Your task to perform on an android device: Open Maps and search for coffee Image 0: 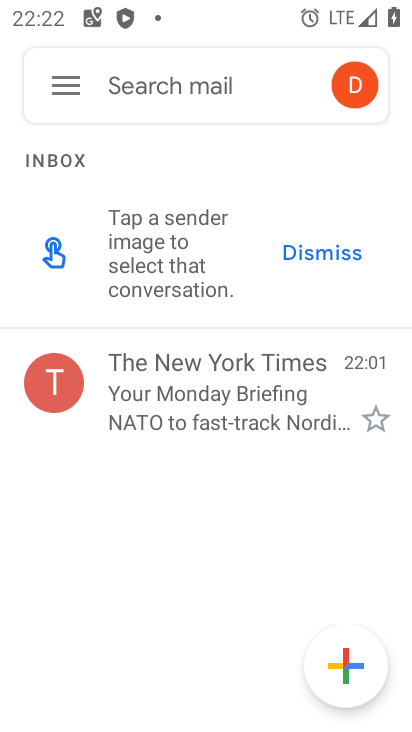
Step 0: press home button
Your task to perform on an android device: Open Maps and search for coffee Image 1: 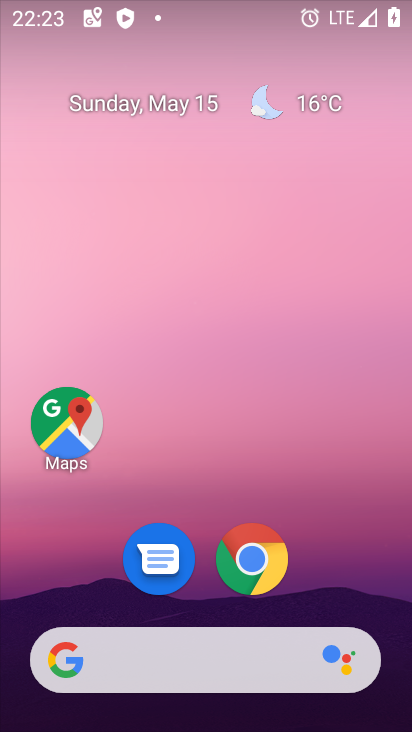
Step 1: click (59, 427)
Your task to perform on an android device: Open Maps and search for coffee Image 2: 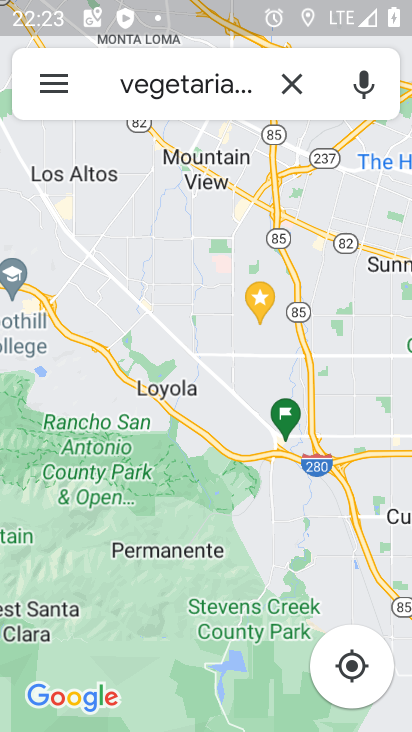
Step 2: click (287, 80)
Your task to perform on an android device: Open Maps and search for coffee Image 3: 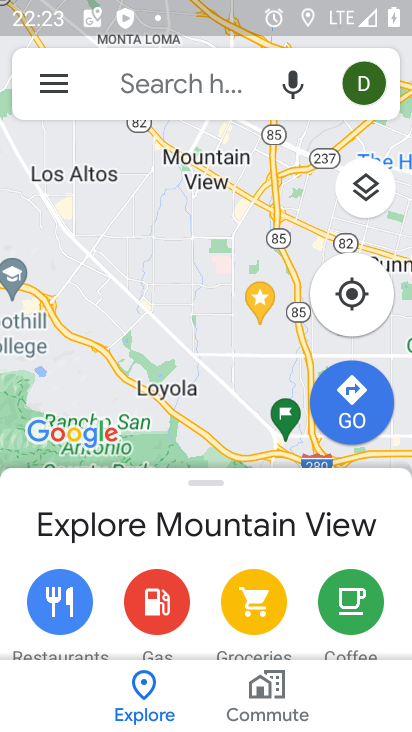
Step 3: click (185, 89)
Your task to perform on an android device: Open Maps and search for coffee Image 4: 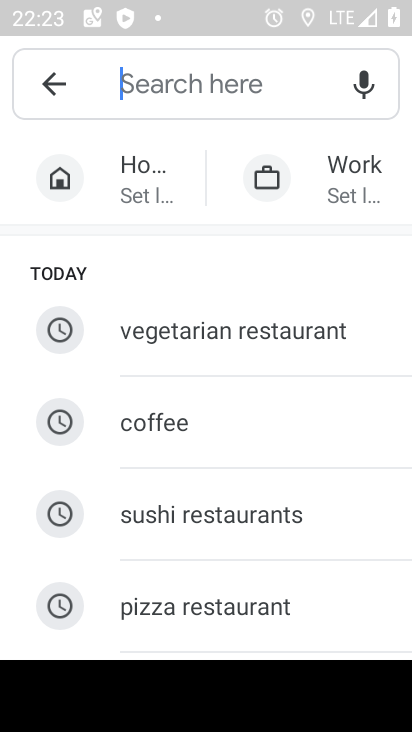
Step 4: click (162, 420)
Your task to perform on an android device: Open Maps and search for coffee Image 5: 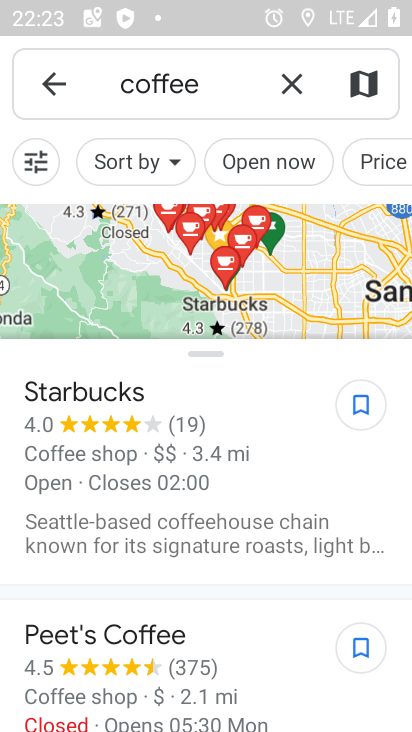
Step 5: task complete